Your task to perform on an android device: Is it going to rain this weekend? Image 0: 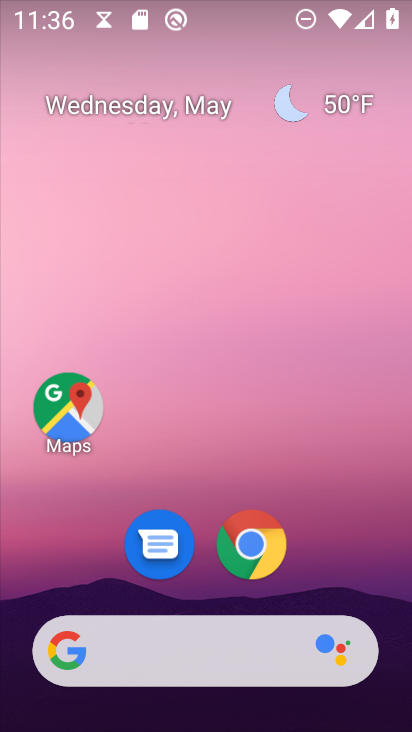
Step 0: click (339, 104)
Your task to perform on an android device: Is it going to rain this weekend? Image 1: 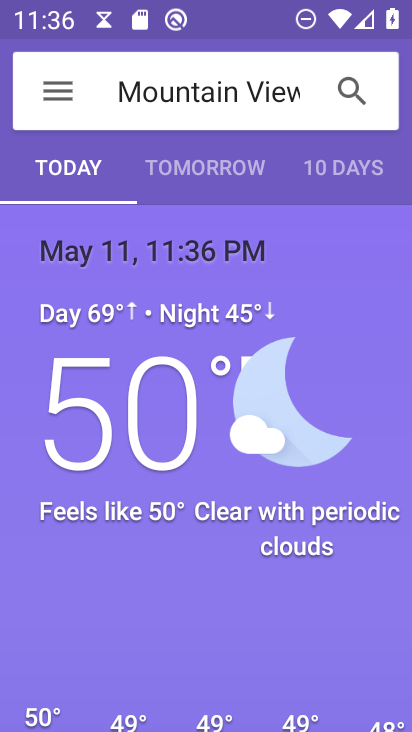
Step 1: task complete